Your task to perform on an android device: Is it going to rain today? Image 0: 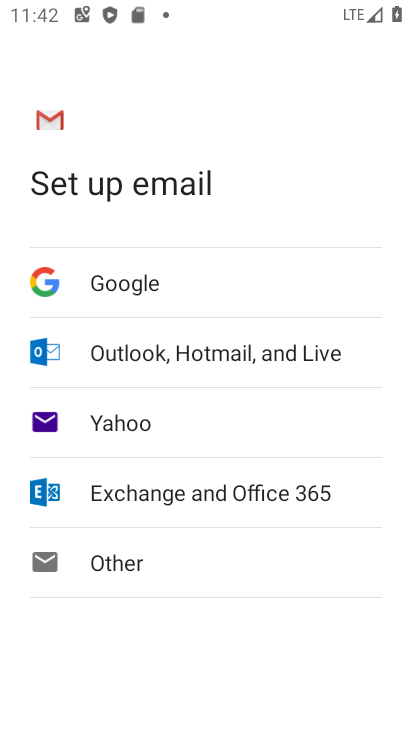
Step 0: press home button
Your task to perform on an android device: Is it going to rain today? Image 1: 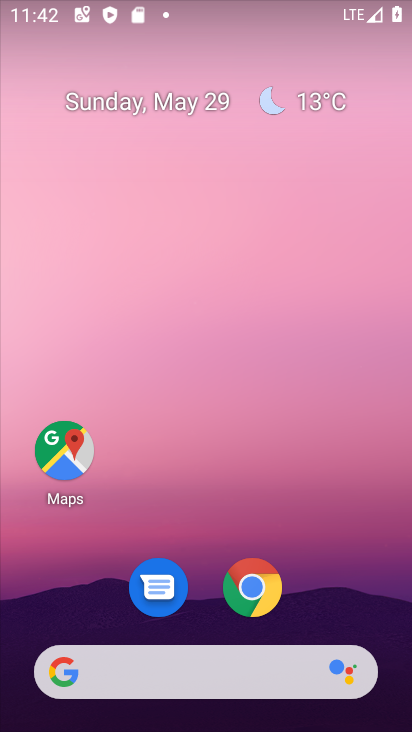
Step 1: click (329, 91)
Your task to perform on an android device: Is it going to rain today? Image 2: 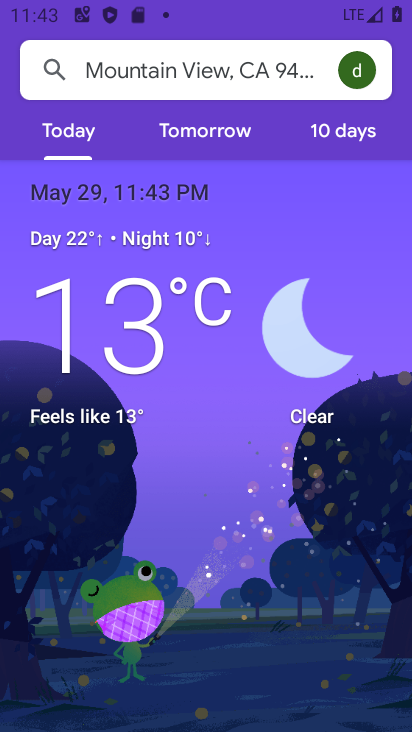
Step 2: task complete